Your task to perform on an android device: toggle pop-ups in chrome Image 0: 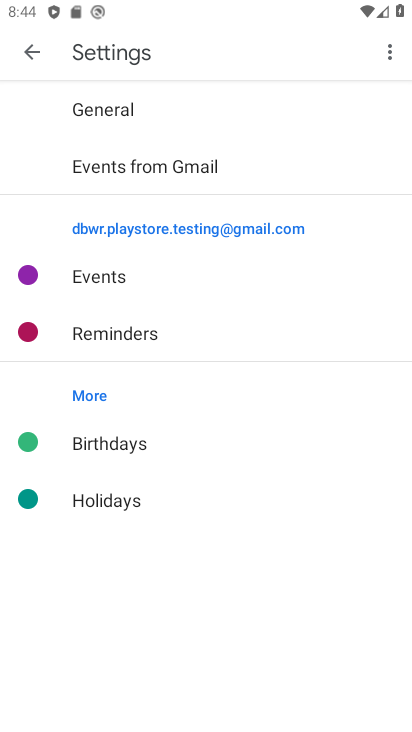
Step 0: press home button
Your task to perform on an android device: toggle pop-ups in chrome Image 1: 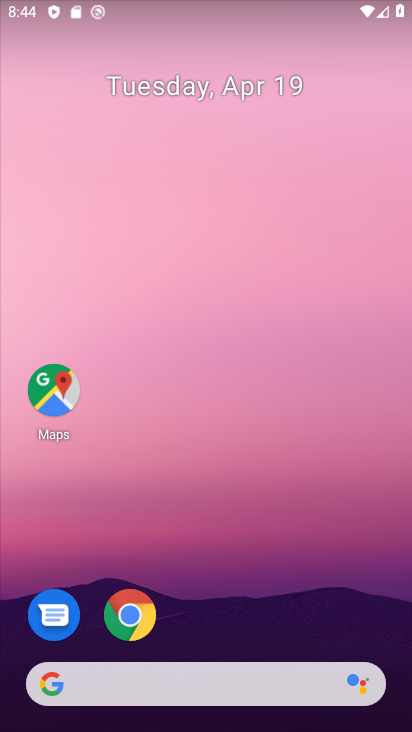
Step 1: click (138, 609)
Your task to perform on an android device: toggle pop-ups in chrome Image 2: 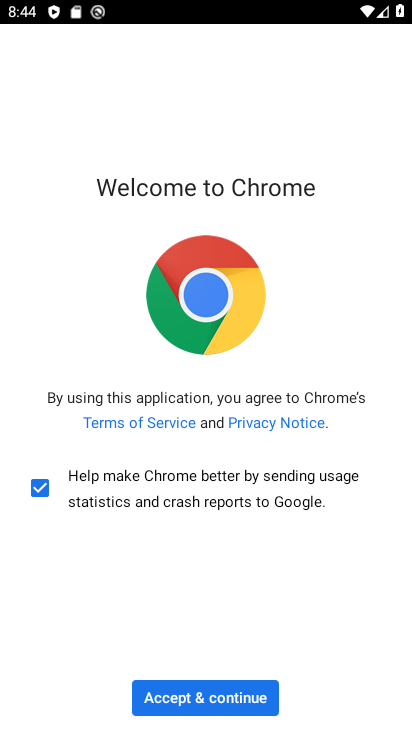
Step 2: click (258, 687)
Your task to perform on an android device: toggle pop-ups in chrome Image 3: 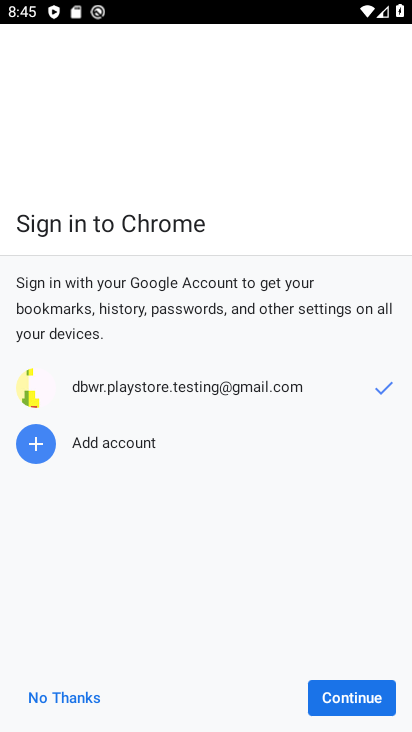
Step 3: click (370, 700)
Your task to perform on an android device: toggle pop-ups in chrome Image 4: 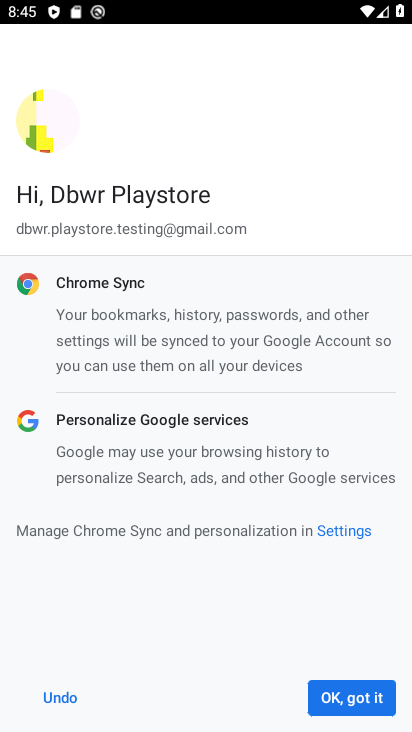
Step 4: click (370, 700)
Your task to perform on an android device: toggle pop-ups in chrome Image 5: 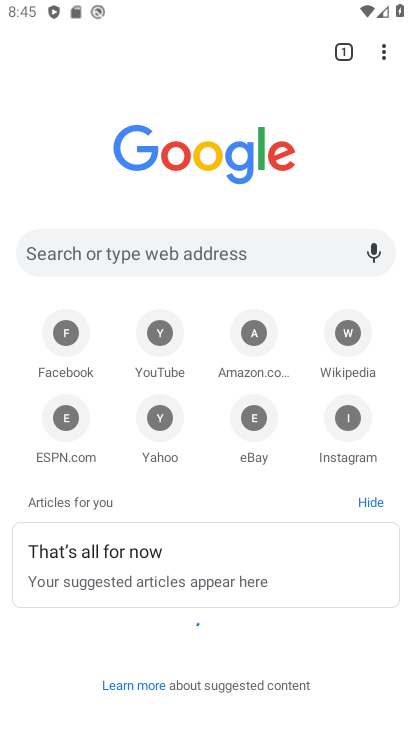
Step 5: click (387, 48)
Your task to perform on an android device: toggle pop-ups in chrome Image 6: 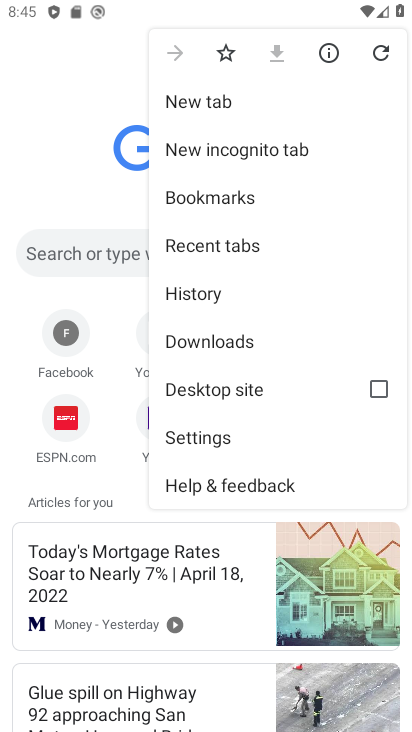
Step 6: click (232, 441)
Your task to perform on an android device: toggle pop-ups in chrome Image 7: 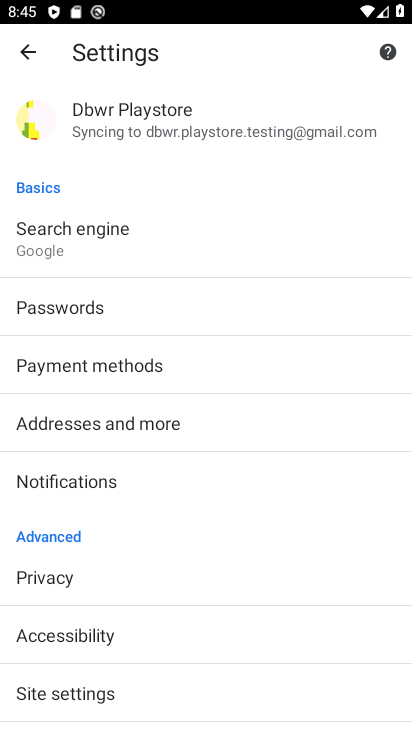
Step 7: drag from (145, 613) to (235, 151)
Your task to perform on an android device: toggle pop-ups in chrome Image 8: 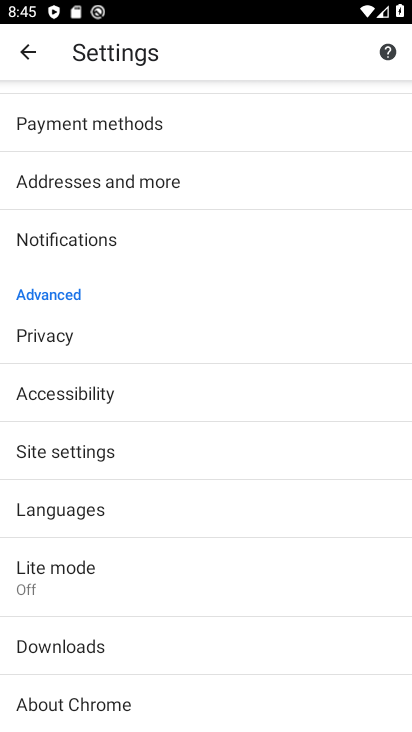
Step 8: click (56, 451)
Your task to perform on an android device: toggle pop-ups in chrome Image 9: 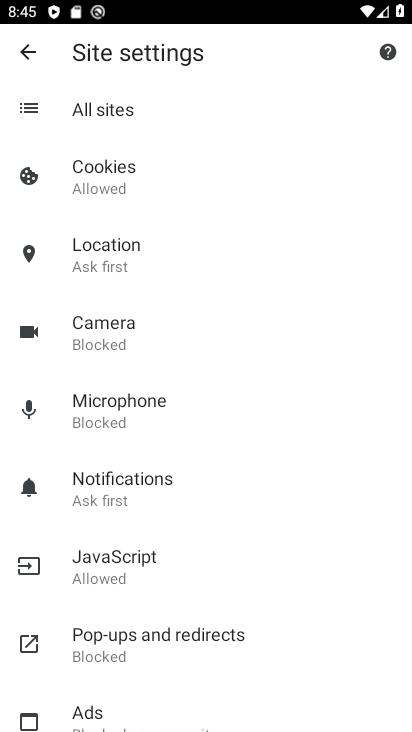
Step 9: click (126, 651)
Your task to perform on an android device: toggle pop-ups in chrome Image 10: 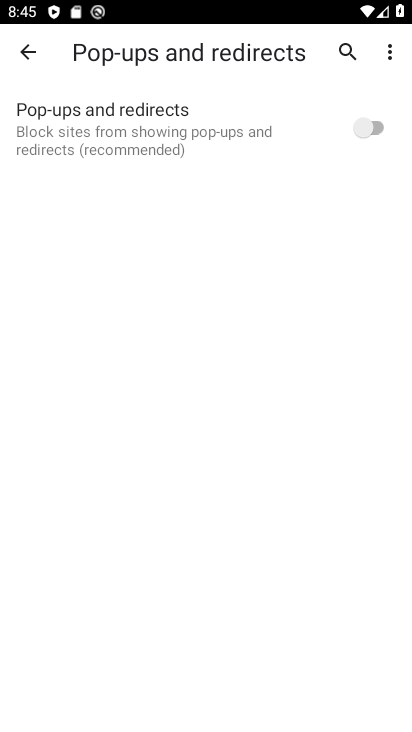
Step 10: click (371, 130)
Your task to perform on an android device: toggle pop-ups in chrome Image 11: 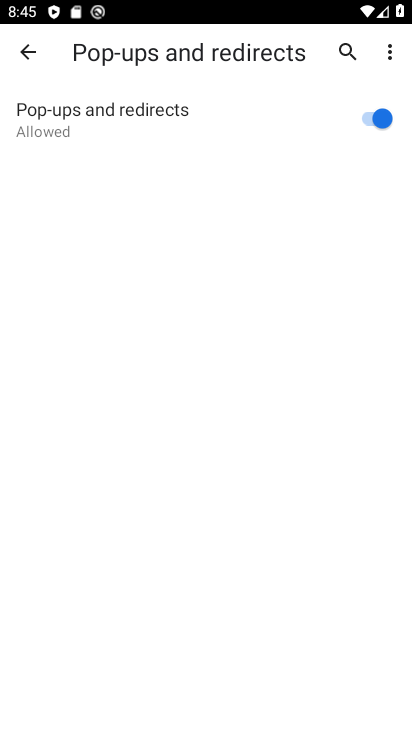
Step 11: click (371, 130)
Your task to perform on an android device: toggle pop-ups in chrome Image 12: 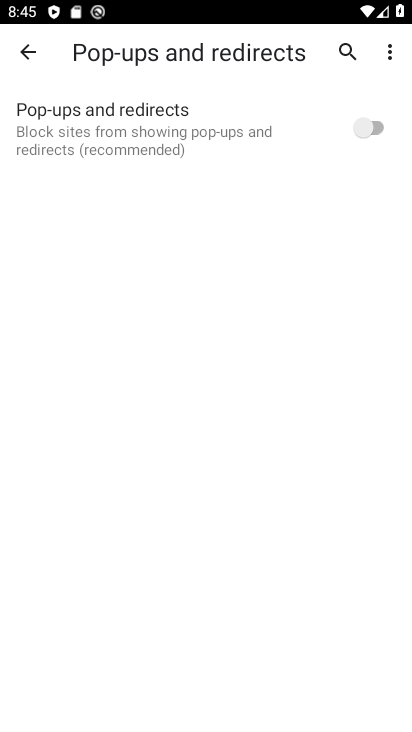
Step 12: task complete